Your task to perform on an android device: open chrome and create a bookmark for the current page Image 0: 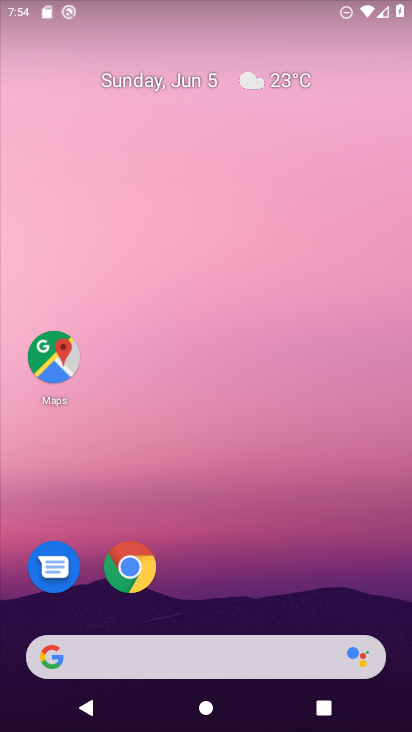
Step 0: drag from (385, 624) to (309, 286)
Your task to perform on an android device: open chrome and create a bookmark for the current page Image 1: 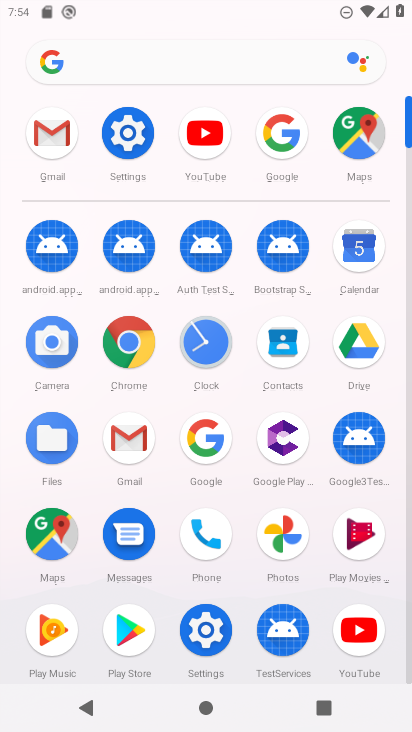
Step 1: click (132, 348)
Your task to perform on an android device: open chrome and create a bookmark for the current page Image 2: 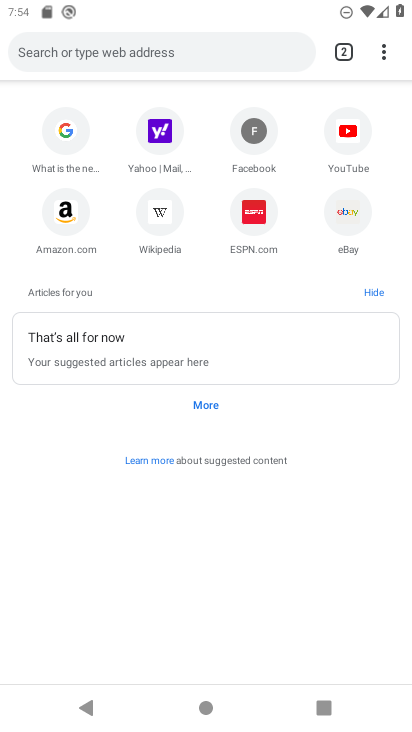
Step 2: click (384, 51)
Your task to perform on an android device: open chrome and create a bookmark for the current page Image 3: 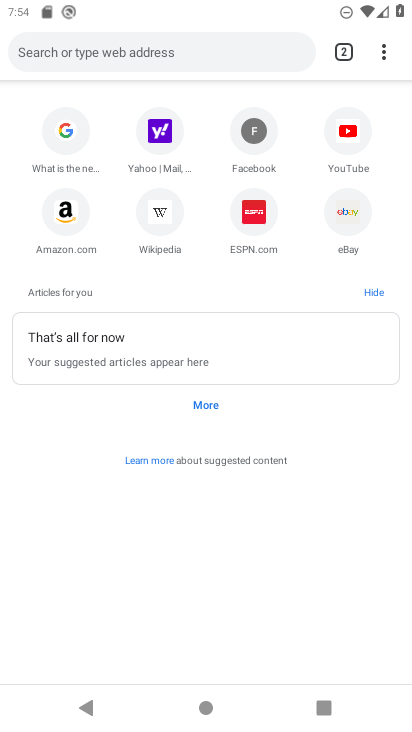
Step 3: click (385, 46)
Your task to perform on an android device: open chrome and create a bookmark for the current page Image 4: 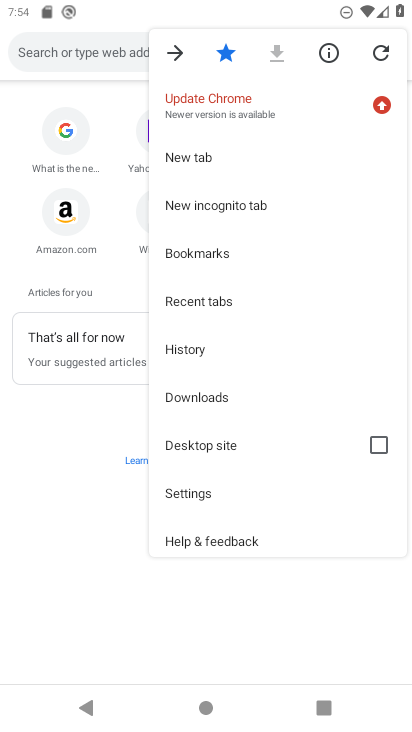
Step 4: task complete